Your task to perform on an android device: open the mobile data screen to see how much data has been used Image 0: 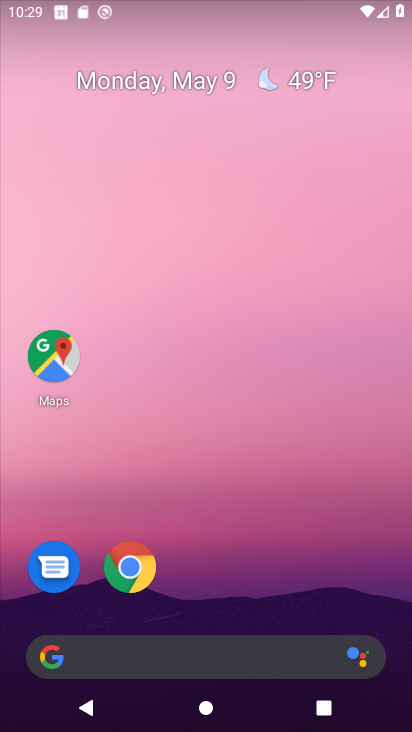
Step 0: drag from (176, 627) to (130, 153)
Your task to perform on an android device: open the mobile data screen to see how much data has been used Image 1: 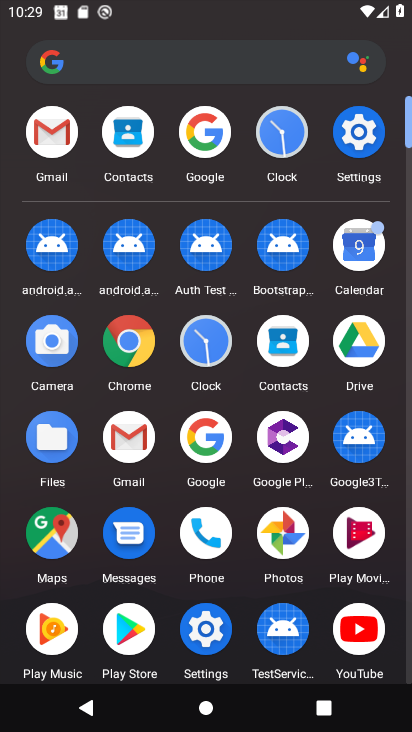
Step 1: click (360, 152)
Your task to perform on an android device: open the mobile data screen to see how much data has been used Image 2: 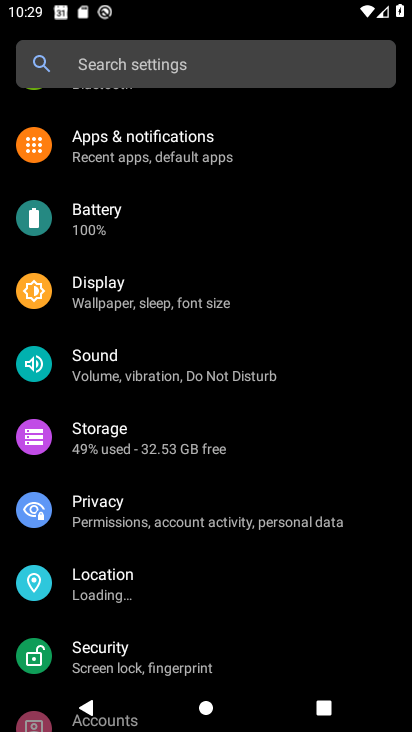
Step 2: drag from (115, 123) to (110, 502)
Your task to perform on an android device: open the mobile data screen to see how much data has been used Image 3: 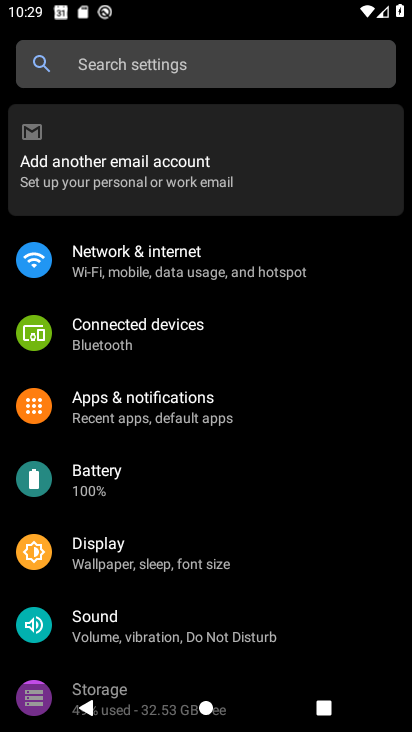
Step 3: click (129, 278)
Your task to perform on an android device: open the mobile data screen to see how much data has been used Image 4: 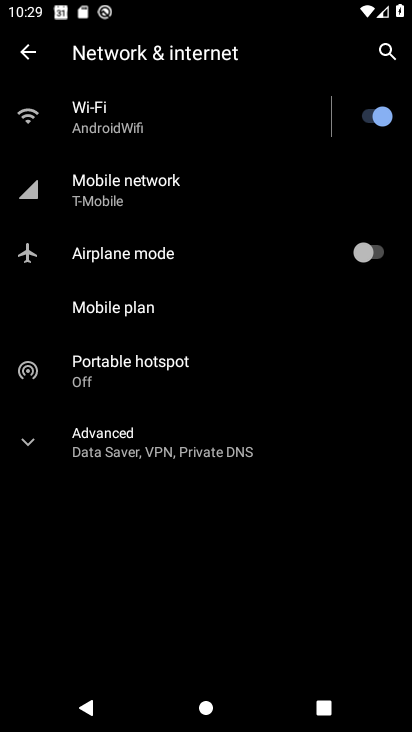
Step 4: click (98, 184)
Your task to perform on an android device: open the mobile data screen to see how much data has been used Image 5: 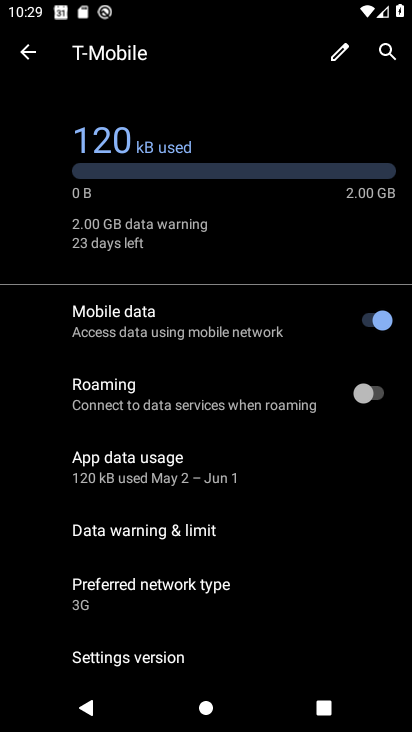
Step 5: task complete